Your task to perform on an android device: Go to wifi settings Image 0: 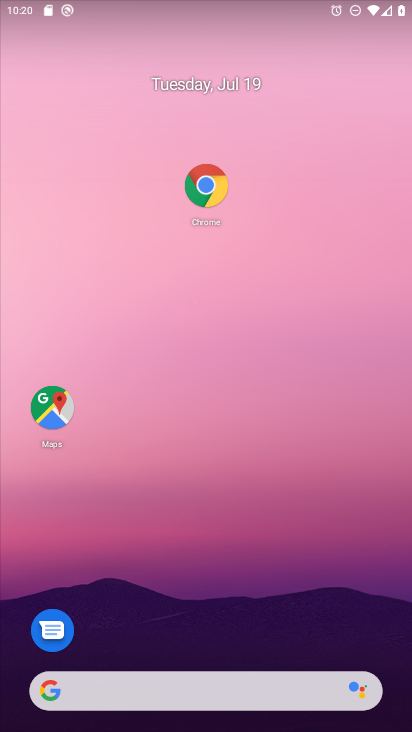
Step 0: drag from (201, 622) to (223, 83)
Your task to perform on an android device: Go to wifi settings Image 1: 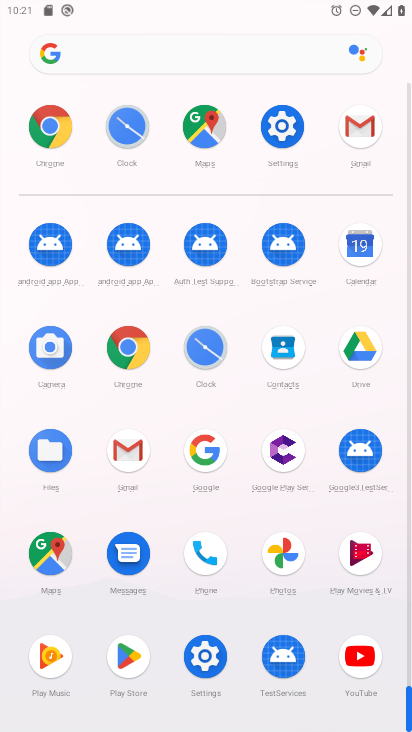
Step 1: click (275, 142)
Your task to perform on an android device: Go to wifi settings Image 2: 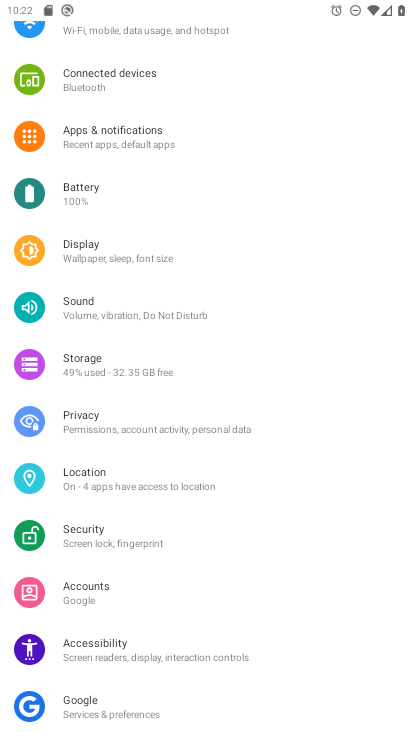
Step 2: drag from (229, 260) to (197, 703)
Your task to perform on an android device: Go to wifi settings Image 3: 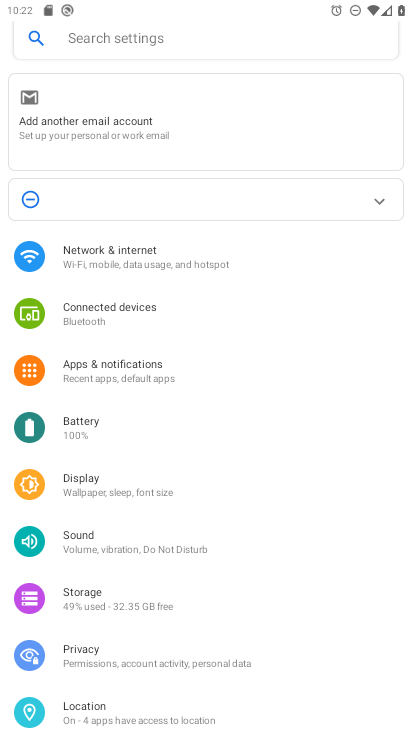
Step 3: click (162, 270)
Your task to perform on an android device: Go to wifi settings Image 4: 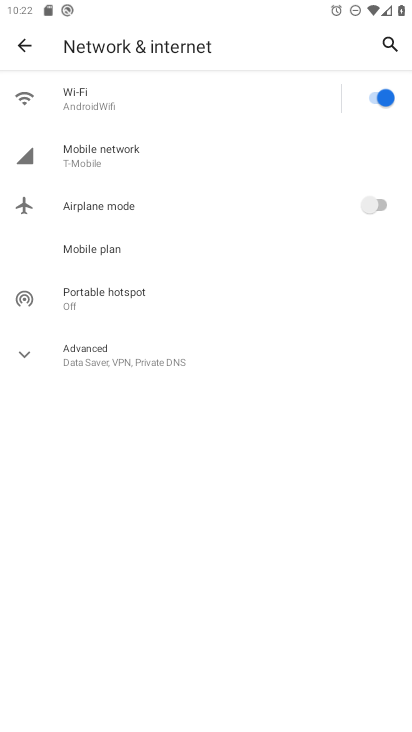
Step 4: click (88, 96)
Your task to perform on an android device: Go to wifi settings Image 5: 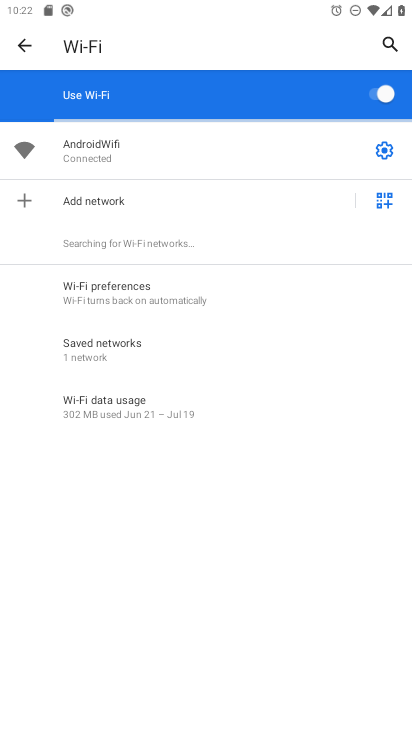
Step 5: task complete